Your task to perform on an android device: What's on my calendar tomorrow? Image 0: 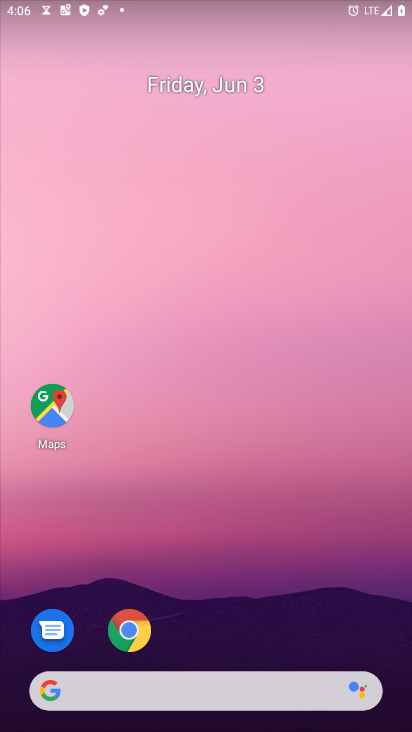
Step 0: drag from (264, 544) to (302, 36)
Your task to perform on an android device: What's on my calendar tomorrow? Image 1: 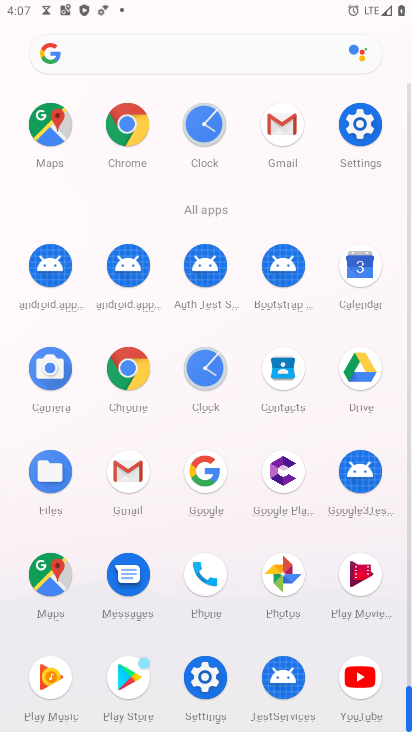
Step 1: click (28, 265)
Your task to perform on an android device: What's on my calendar tomorrow? Image 2: 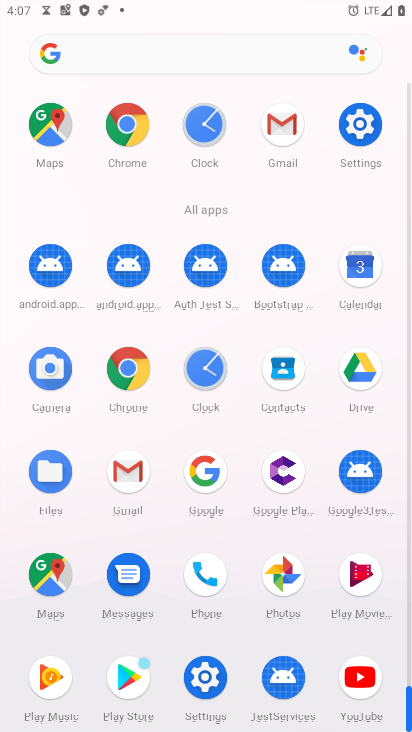
Step 2: click (361, 264)
Your task to perform on an android device: What's on my calendar tomorrow? Image 3: 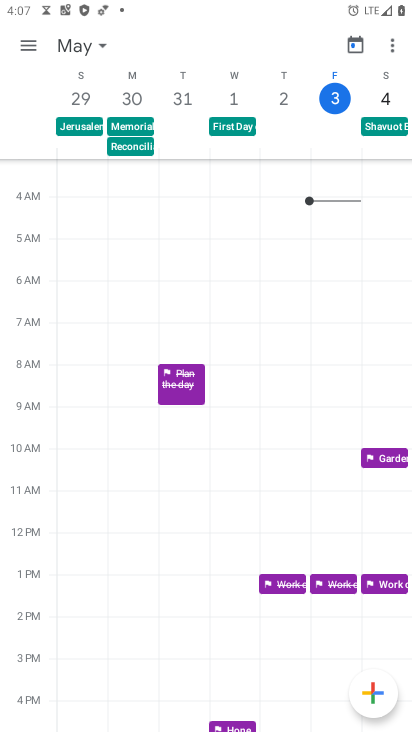
Step 3: click (75, 38)
Your task to perform on an android device: What's on my calendar tomorrow? Image 4: 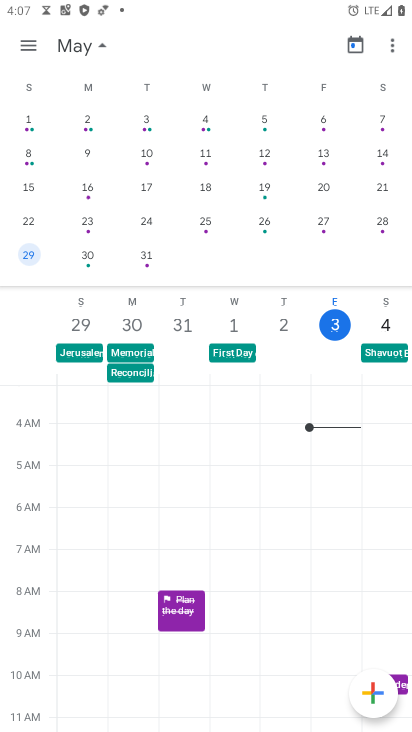
Step 4: click (385, 318)
Your task to perform on an android device: What's on my calendar tomorrow? Image 5: 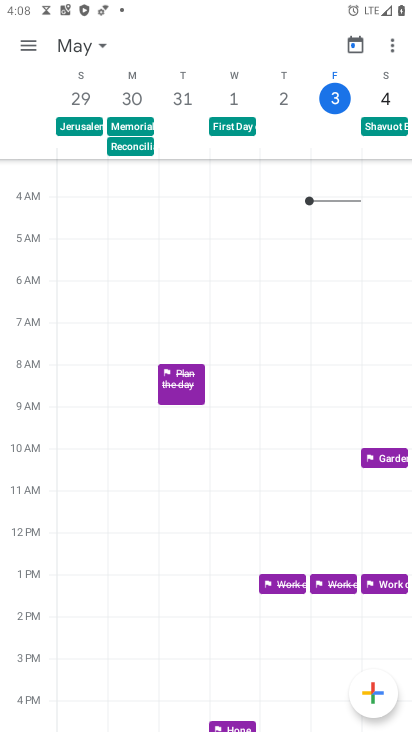
Step 5: click (384, 96)
Your task to perform on an android device: What's on my calendar tomorrow? Image 6: 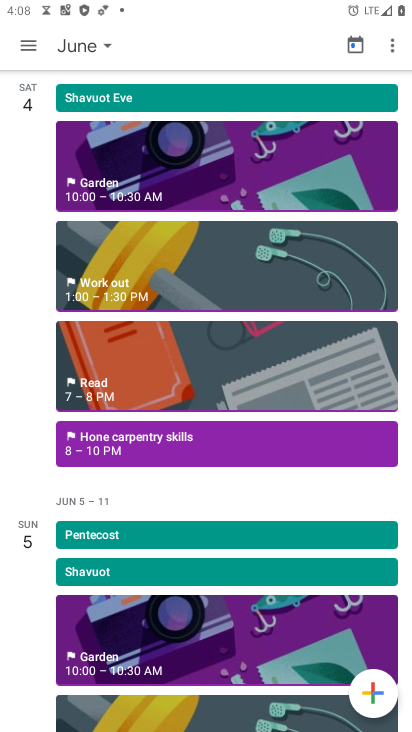
Step 6: task complete